Your task to perform on an android device: add a contact in the contacts app Image 0: 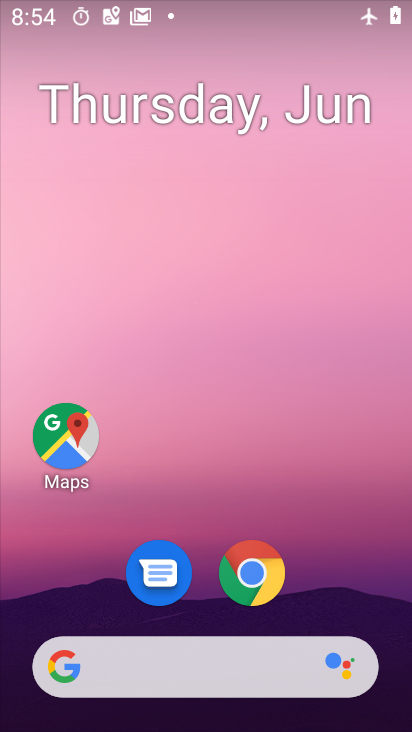
Step 0: drag from (345, 614) to (322, 274)
Your task to perform on an android device: add a contact in the contacts app Image 1: 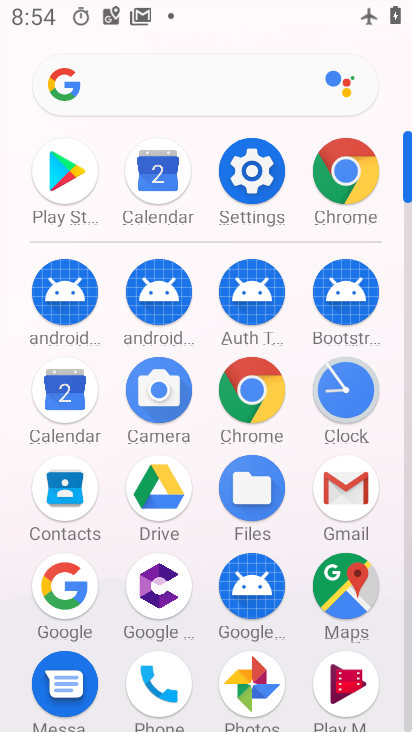
Step 1: click (164, 667)
Your task to perform on an android device: add a contact in the contacts app Image 2: 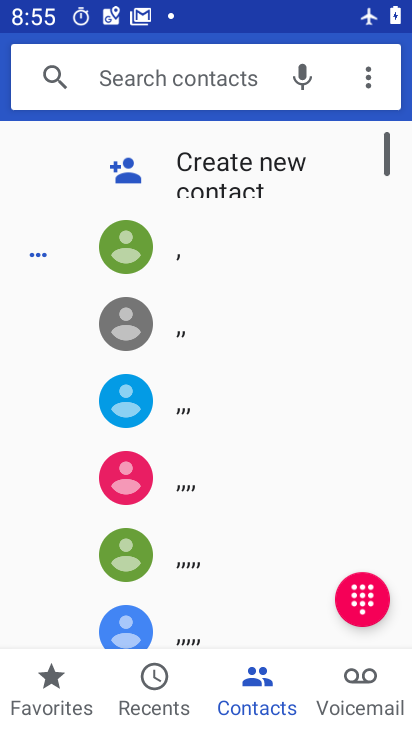
Step 2: click (201, 165)
Your task to perform on an android device: add a contact in the contacts app Image 3: 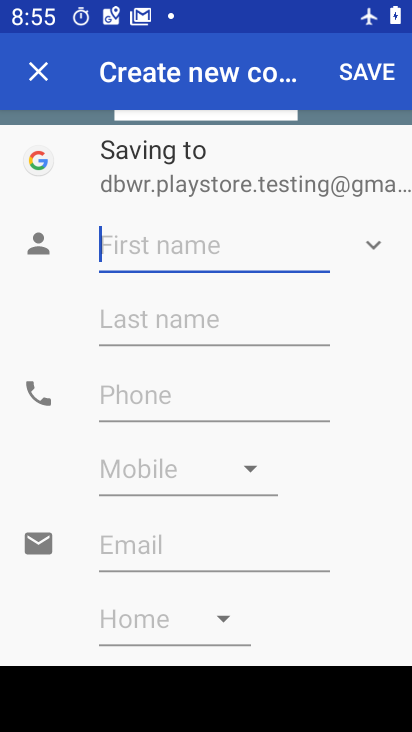
Step 3: click (169, 232)
Your task to perform on an android device: add a contact in the contacts app Image 4: 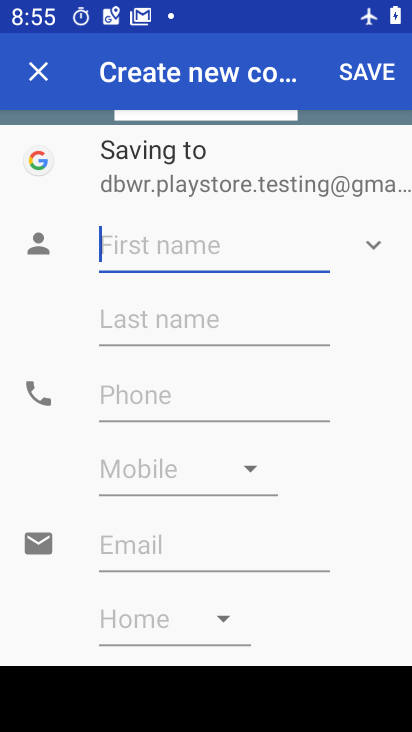
Step 4: type "uugugugugugug"
Your task to perform on an android device: add a contact in the contacts app Image 5: 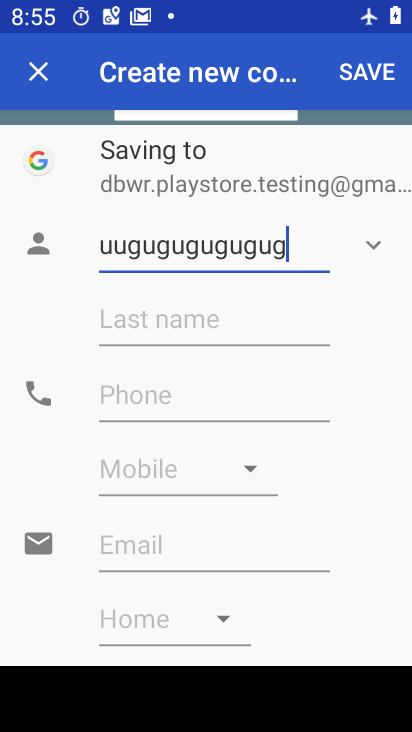
Step 5: click (124, 392)
Your task to perform on an android device: add a contact in the contacts app Image 6: 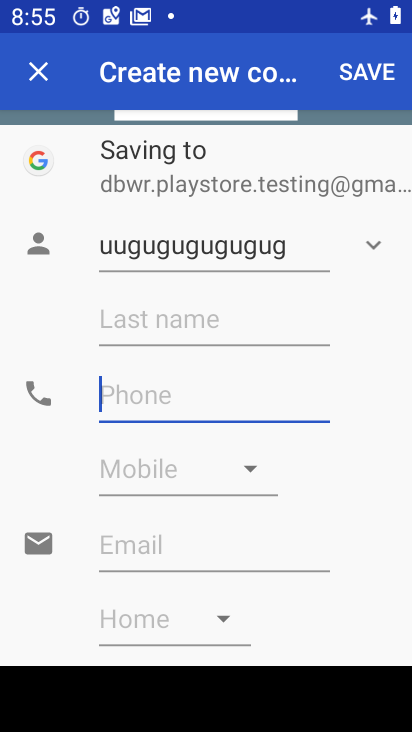
Step 6: type "123456789"
Your task to perform on an android device: add a contact in the contacts app Image 7: 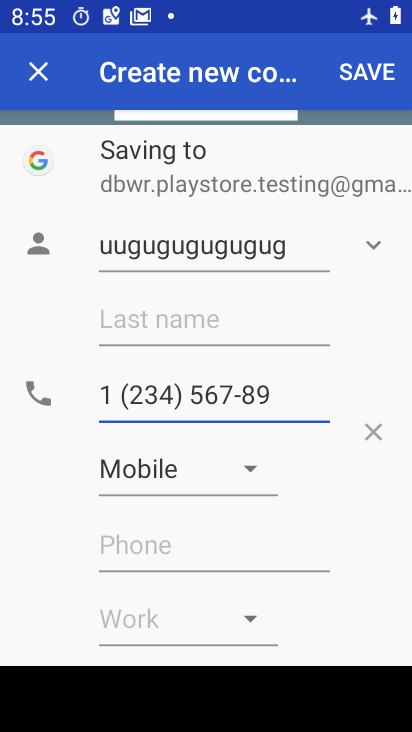
Step 7: click (388, 62)
Your task to perform on an android device: add a contact in the contacts app Image 8: 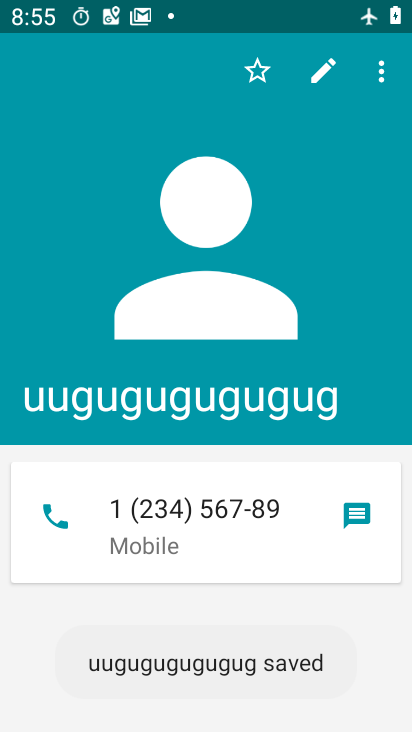
Step 8: task complete